Your task to perform on an android device: turn on the 12-hour format for clock Image 0: 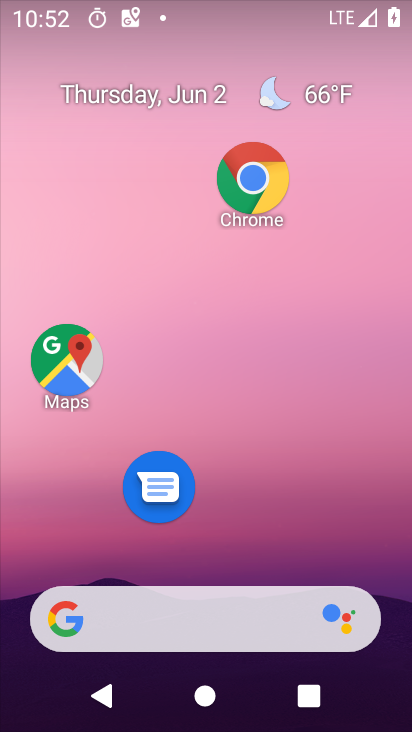
Step 0: drag from (237, 726) to (243, 25)
Your task to perform on an android device: turn on the 12-hour format for clock Image 1: 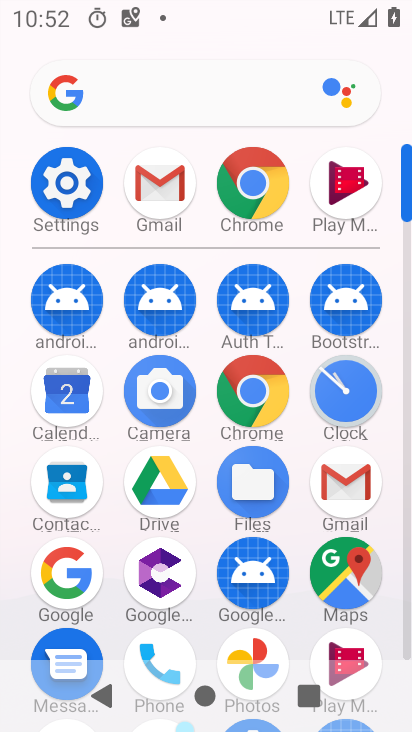
Step 1: click (346, 393)
Your task to perform on an android device: turn on the 12-hour format for clock Image 2: 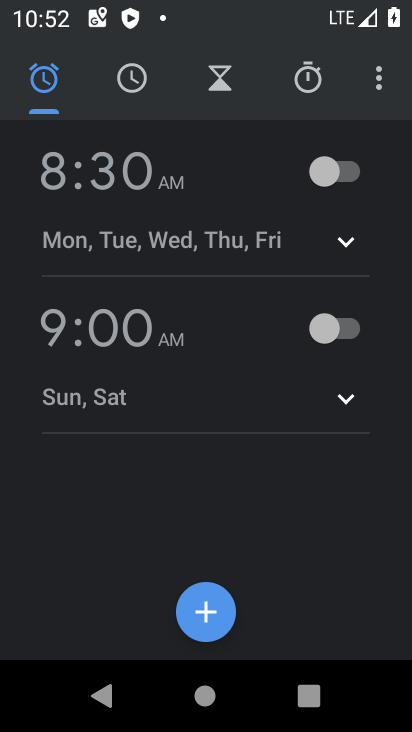
Step 2: click (381, 91)
Your task to perform on an android device: turn on the 12-hour format for clock Image 3: 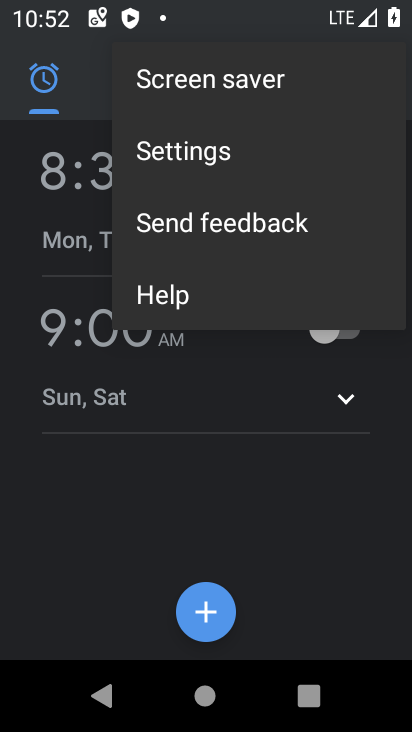
Step 3: click (175, 150)
Your task to perform on an android device: turn on the 12-hour format for clock Image 4: 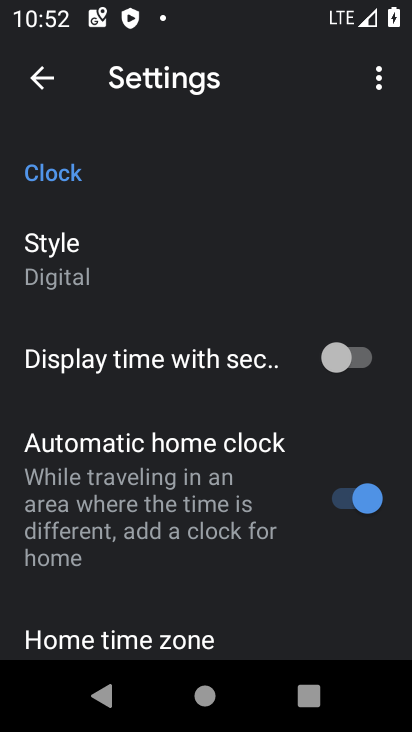
Step 4: drag from (110, 594) to (114, 158)
Your task to perform on an android device: turn on the 12-hour format for clock Image 5: 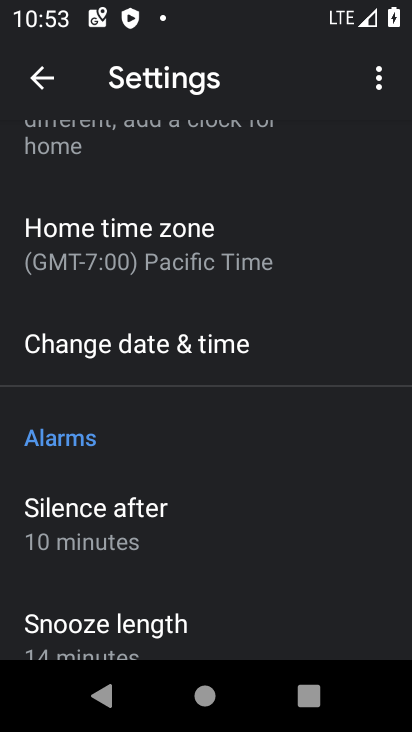
Step 5: click (173, 338)
Your task to perform on an android device: turn on the 12-hour format for clock Image 6: 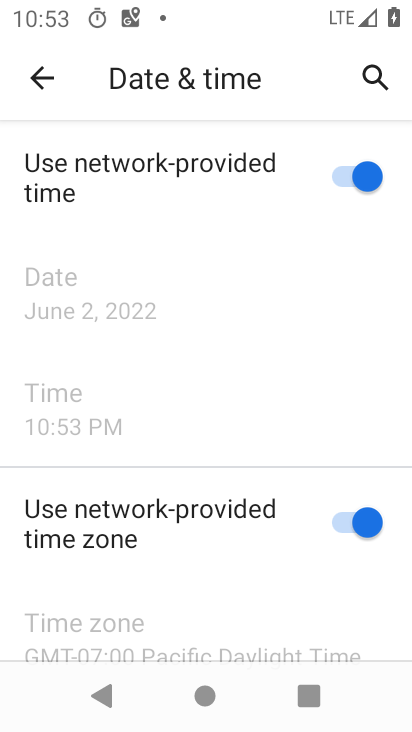
Step 6: task complete